Your task to perform on an android device: Open ESPN.com Image 0: 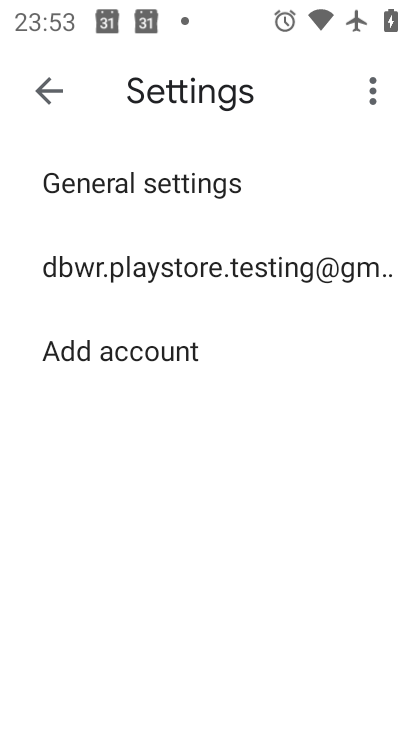
Step 0: press home button
Your task to perform on an android device: Open ESPN.com Image 1: 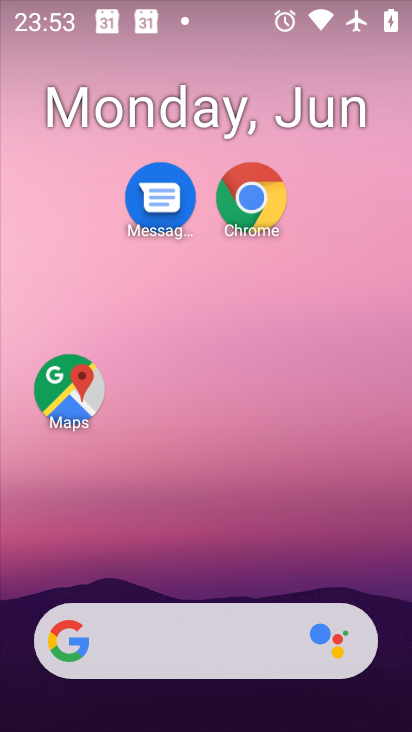
Step 1: click (236, 212)
Your task to perform on an android device: Open ESPN.com Image 2: 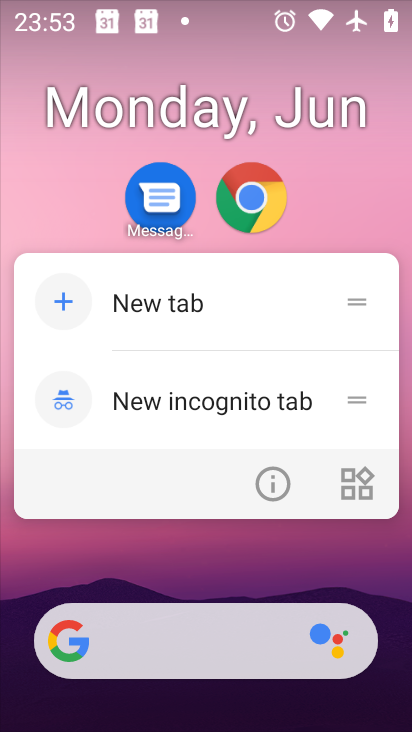
Step 2: click (237, 211)
Your task to perform on an android device: Open ESPN.com Image 3: 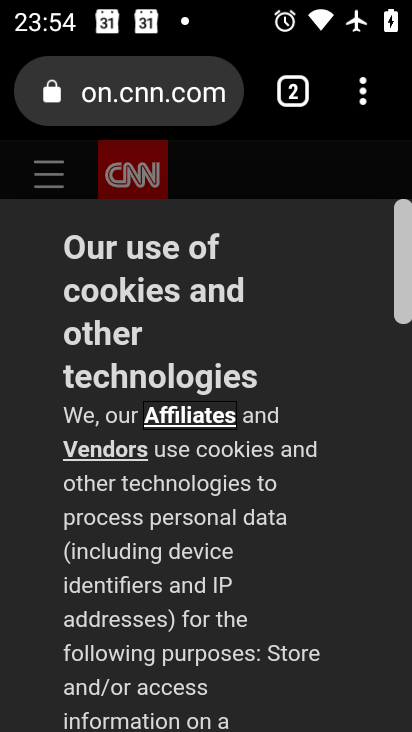
Step 3: click (278, 92)
Your task to perform on an android device: Open ESPN.com Image 4: 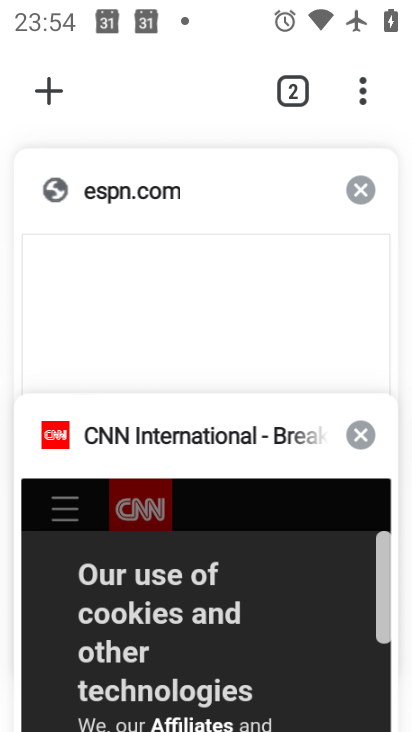
Step 4: click (103, 182)
Your task to perform on an android device: Open ESPN.com Image 5: 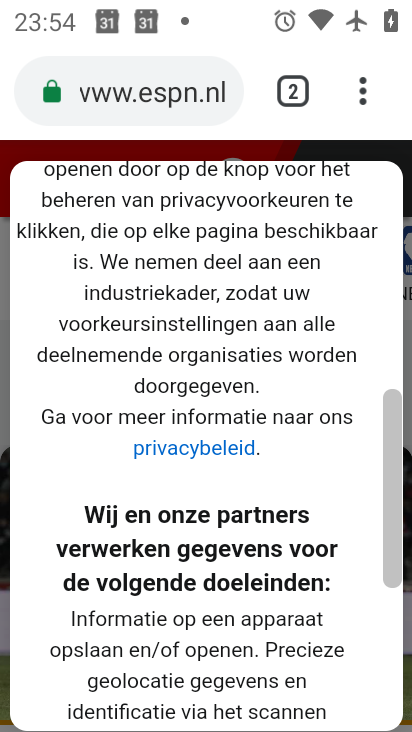
Step 5: task complete